Your task to perform on an android device: Open notification settings Image 0: 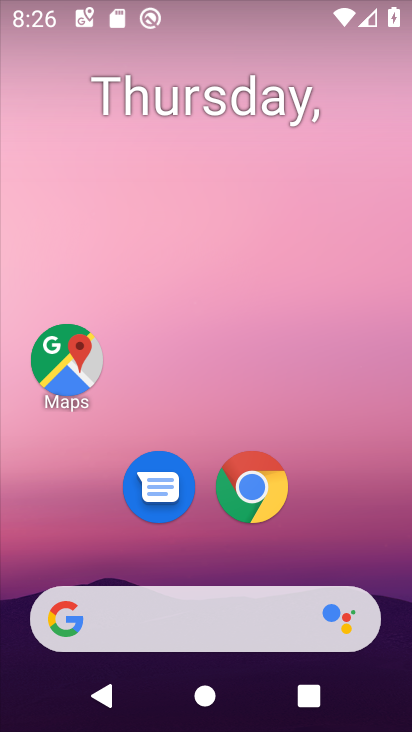
Step 0: drag from (214, 571) to (220, 67)
Your task to perform on an android device: Open notification settings Image 1: 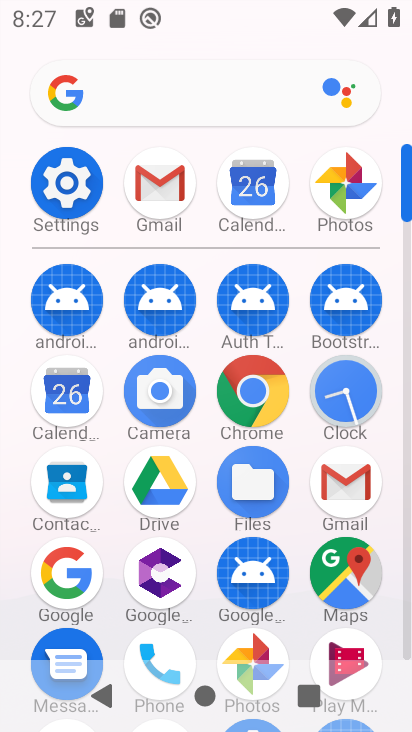
Step 1: click (64, 182)
Your task to perform on an android device: Open notification settings Image 2: 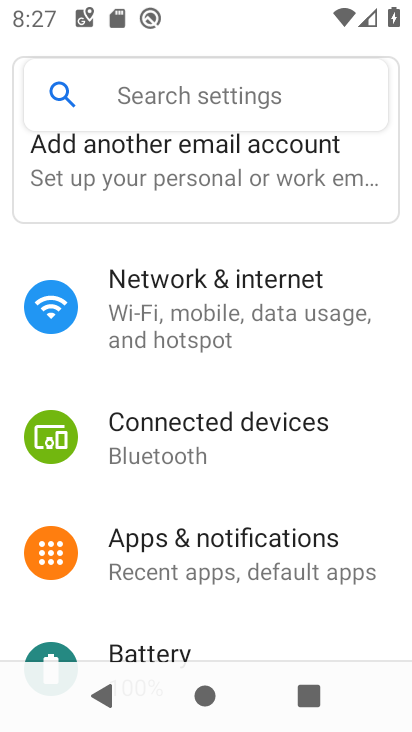
Step 2: click (234, 550)
Your task to perform on an android device: Open notification settings Image 3: 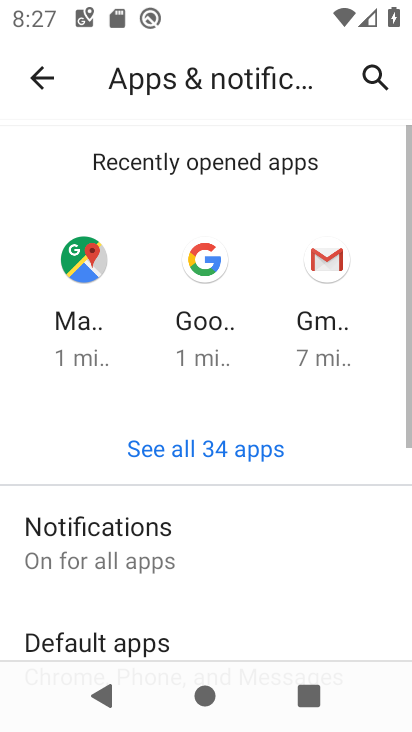
Step 3: task complete